Your task to perform on an android device: Open the map Image 0: 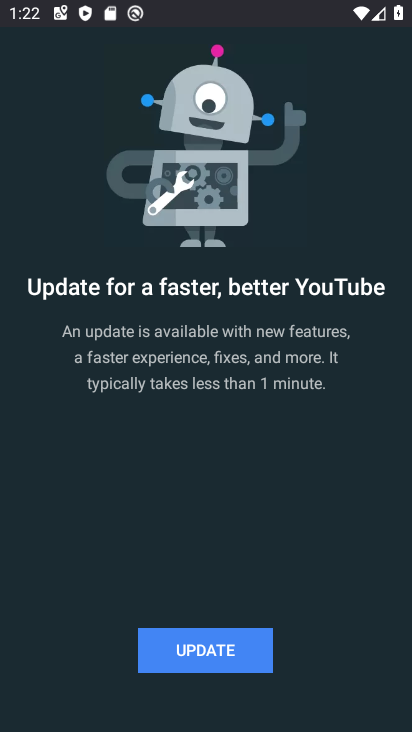
Step 0: press home button
Your task to perform on an android device: Open the map Image 1: 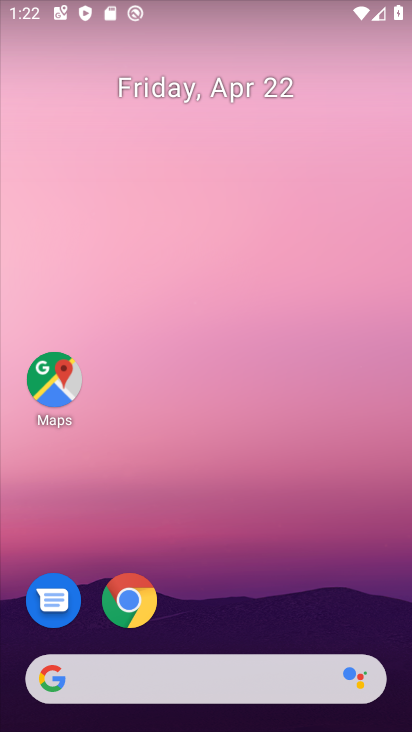
Step 1: drag from (230, 631) to (252, 177)
Your task to perform on an android device: Open the map Image 2: 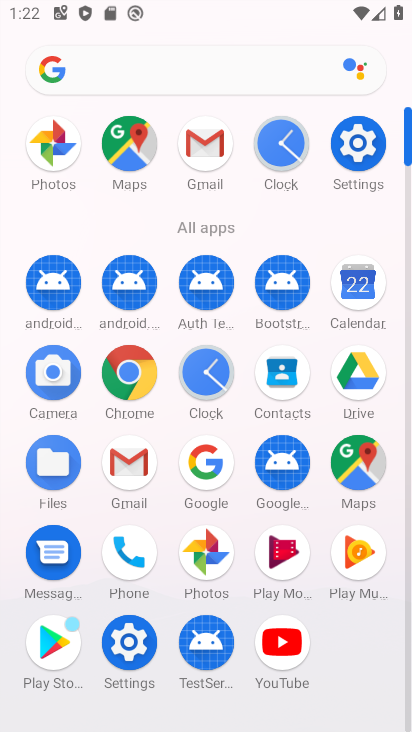
Step 2: click (352, 462)
Your task to perform on an android device: Open the map Image 3: 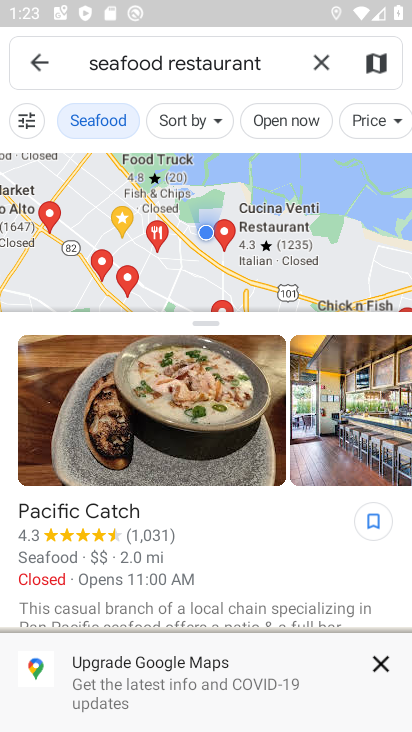
Step 3: task complete